Your task to perform on an android device: Open Android settings Image 0: 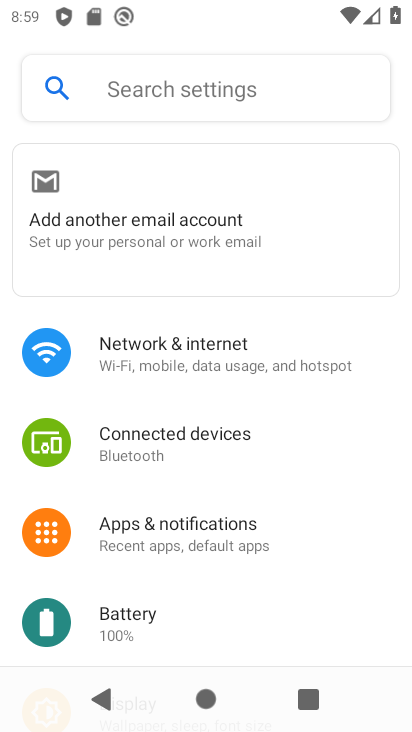
Step 0: drag from (211, 579) to (299, 68)
Your task to perform on an android device: Open Android settings Image 1: 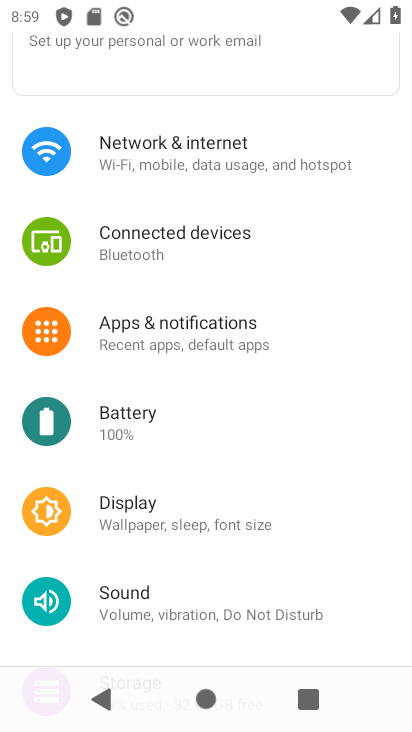
Step 1: drag from (197, 503) to (279, 1)
Your task to perform on an android device: Open Android settings Image 2: 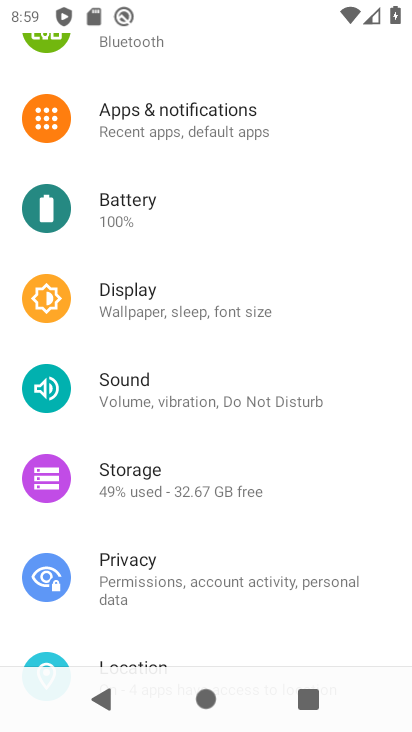
Step 2: drag from (238, 506) to (279, 11)
Your task to perform on an android device: Open Android settings Image 3: 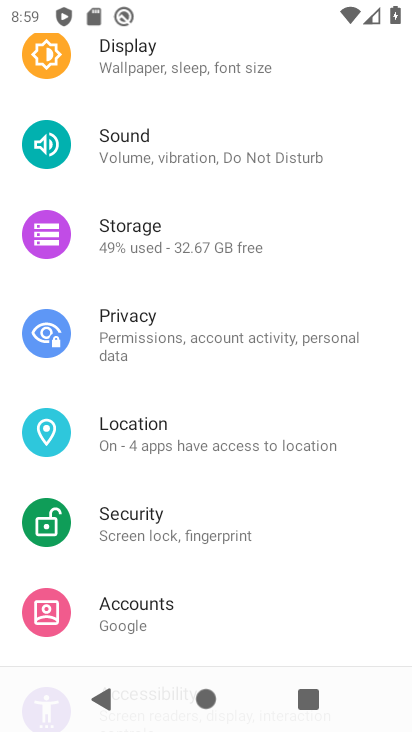
Step 3: drag from (263, 548) to (325, 239)
Your task to perform on an android device: Open Android settings Image 4: 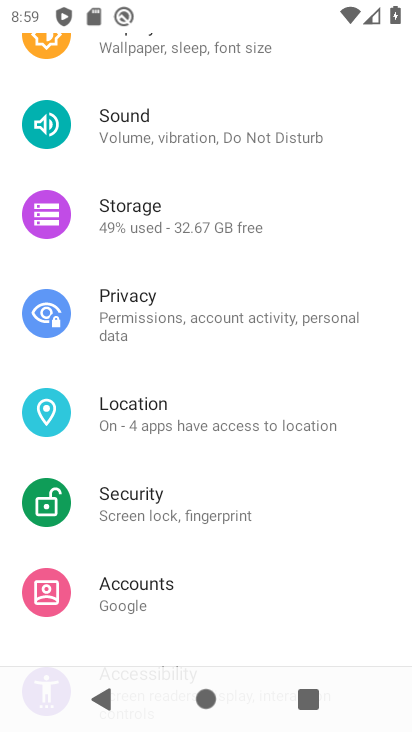
Step 4: drag from (243, 652) to (213, 198)
Your task to perform on an android device: Open Android settings Image 5: 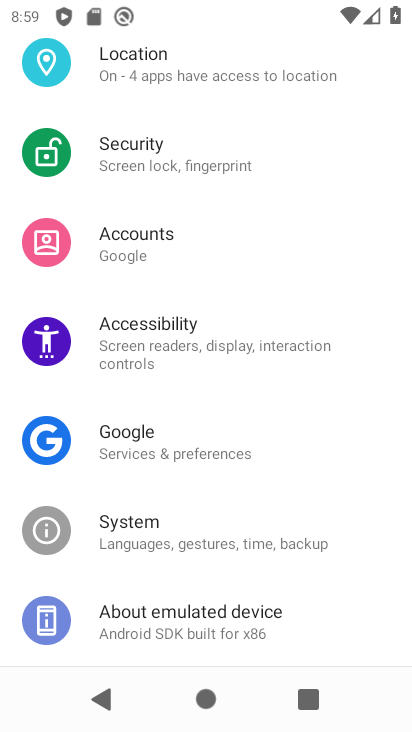
Step 5: drag from (167, 561) to (224, 215)
Your task to perform on an android device: Open Android settings Image 6: 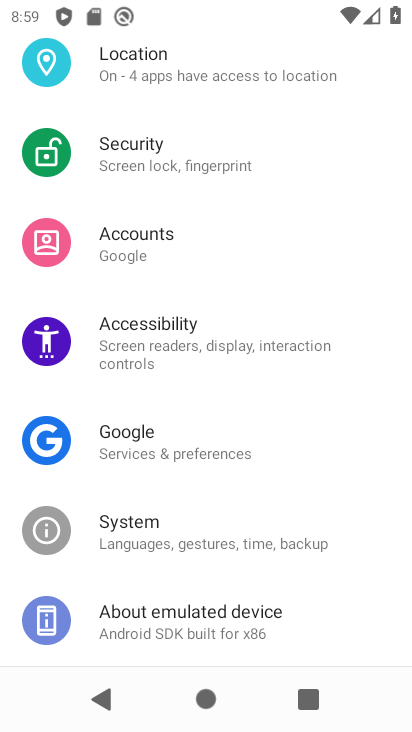
Step 6: click (198, 629)
Your task to perform on an android device: Open Android settings Image 7: 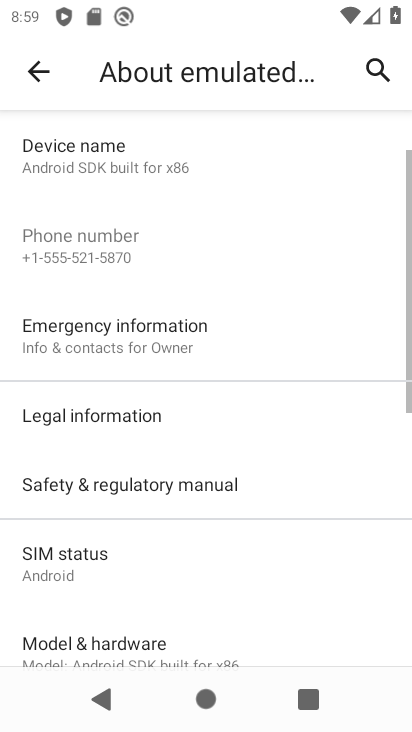
Step 7: drag from (220, 558) to (229, 238)
Your task to perform on an android device: Open Android settings Image 8: 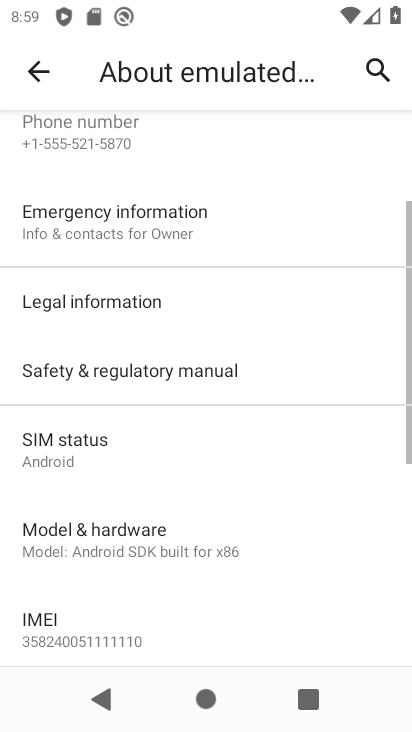
Step 8: drag from (228, 509) to (298, 121)
Your task to perform on an android device: Open Android settings Image 9: 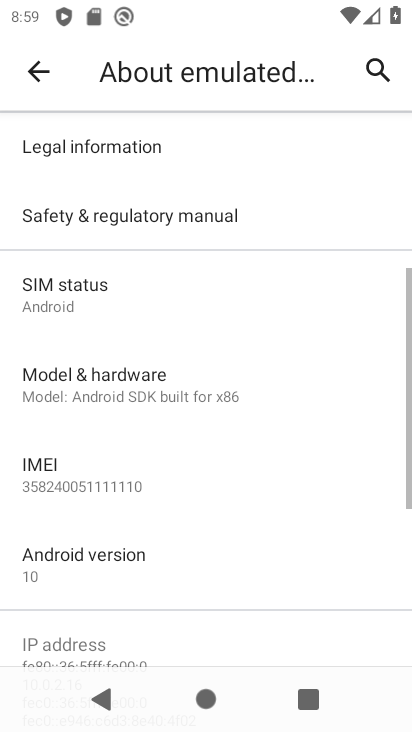
Step 9: click (89, 558)
Your task to perform on an android device: Open Android settings Image 10: 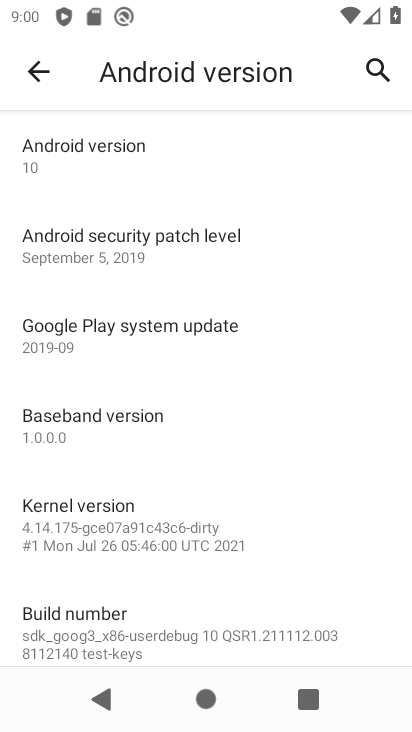
Step 10: task complete